Your task to perform on an android device: check battery use Image 0: 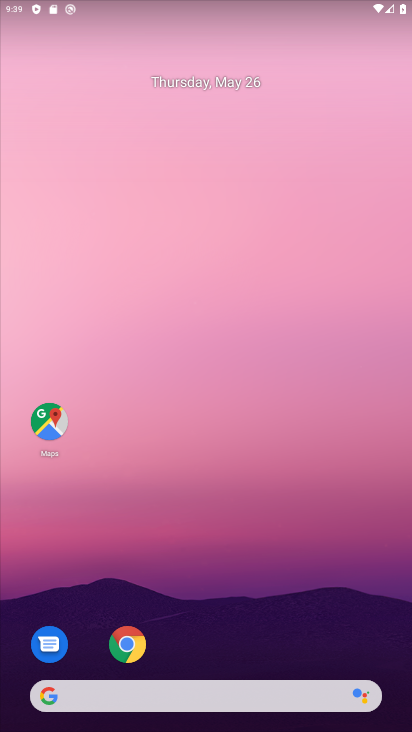
Step 0: drag from (254, 704) to (133, 136)
Your task to perform on an android device: check battery use Image 1: 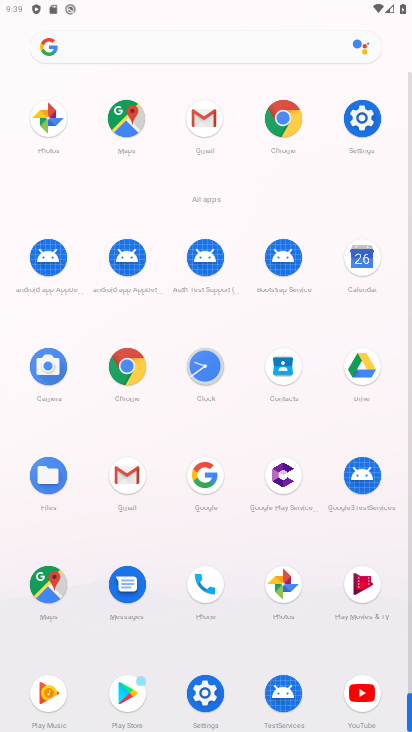
Step 1: click (352, 119)
Your task to perform on an android device: check battery use Image 2: 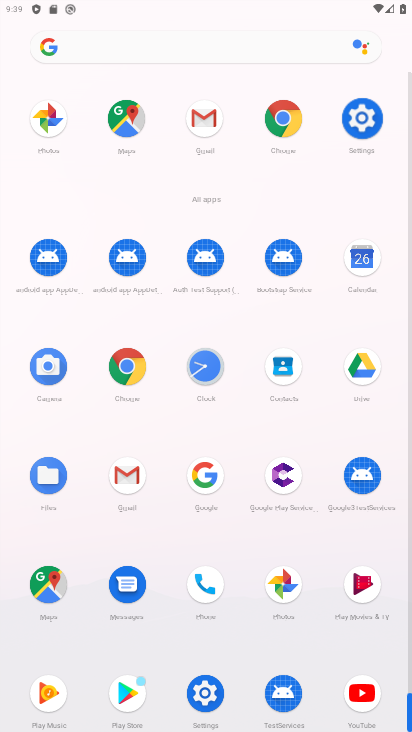
Step 2: click (355, 117)
Your task to perform on an android device: check battery use Image 3: 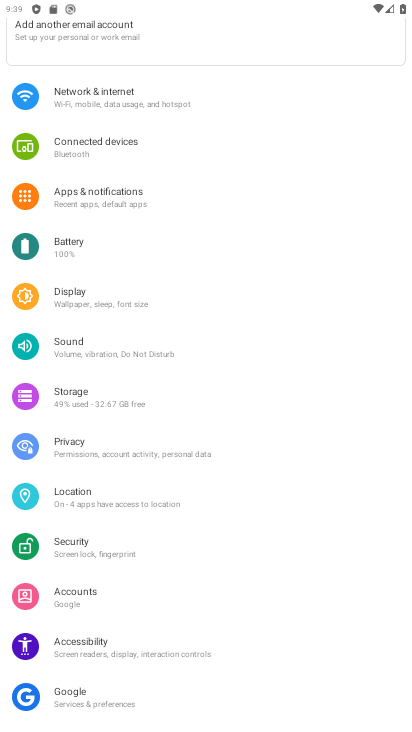
Step 3: click (72, 254)
Your task to perform on an android device: check battery use Image 4: 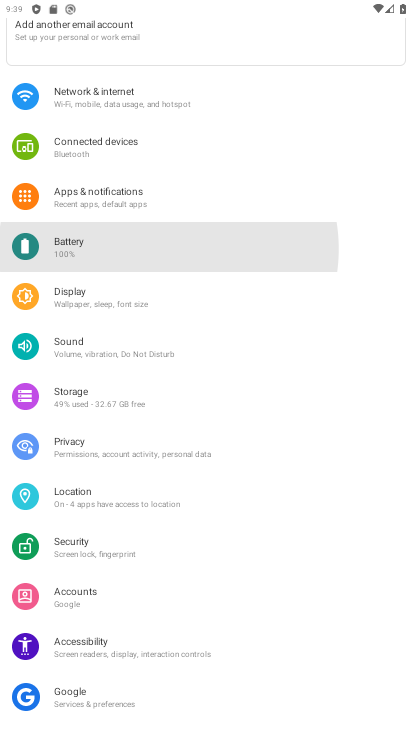
Step 4: click (72, 254)
Your task to perform on an android device: check battery use Image 5: 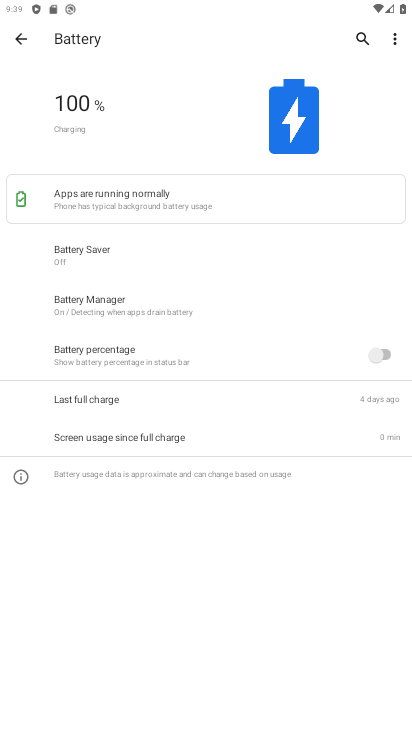
Step 5: task complete